Your task to perform on an android device: visit the assistant section in the google photos Image 0: 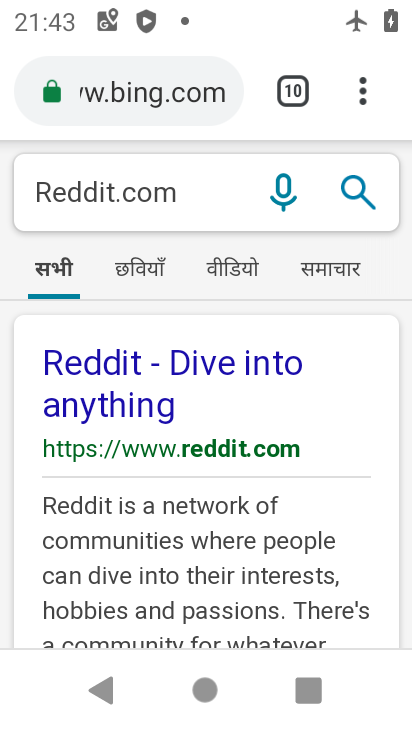
Step 0: press home button
Your task to perform on an android device: visit the assistant section in the google photos Image 1: 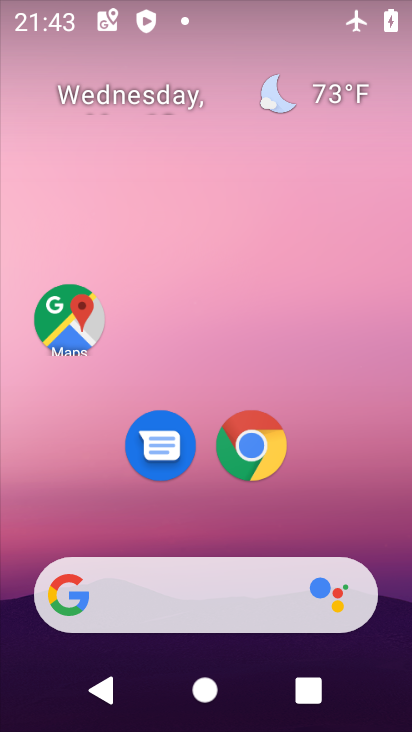
Step 1: drag from (281, 441) to (282, 148)
Your task to perform on an android device: visit the assistant section in the google photos Image 2: 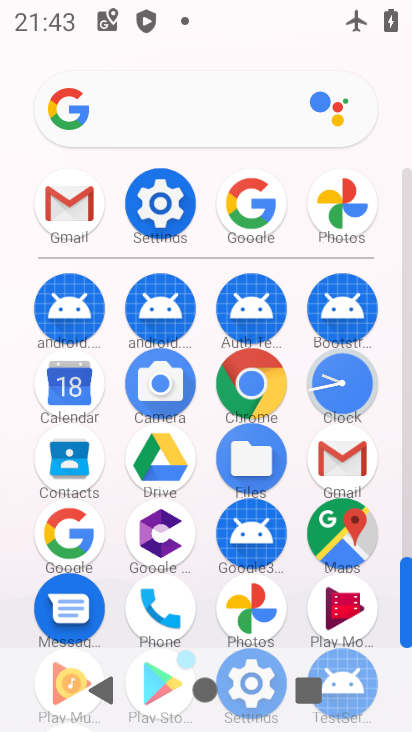
Step 2: click (248, 593)
Your task to perform on an android device: visit the assistant section in the google photos Image 3: 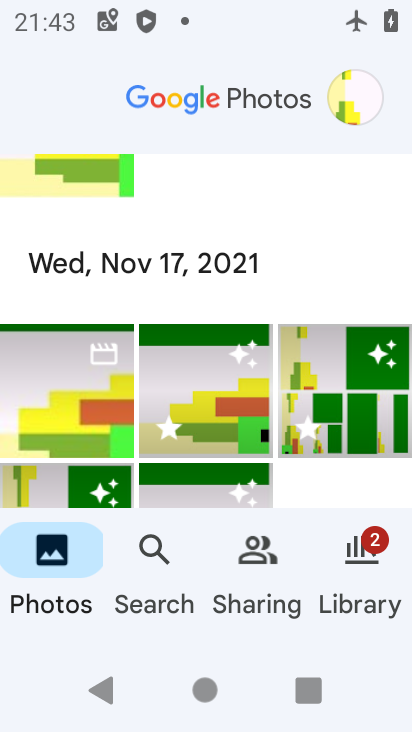
Step 3: drag from (327, 556) to (112, 546)
Your task to perform on an android device: visit the assistant section in the google photos Image 4: 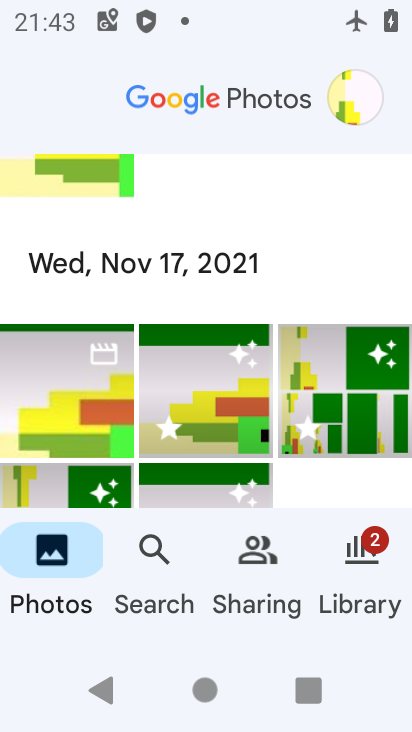
Step 4: click (353, 561)
Your task to perform on an android device: visit the assistant section in the google photos Image 5: 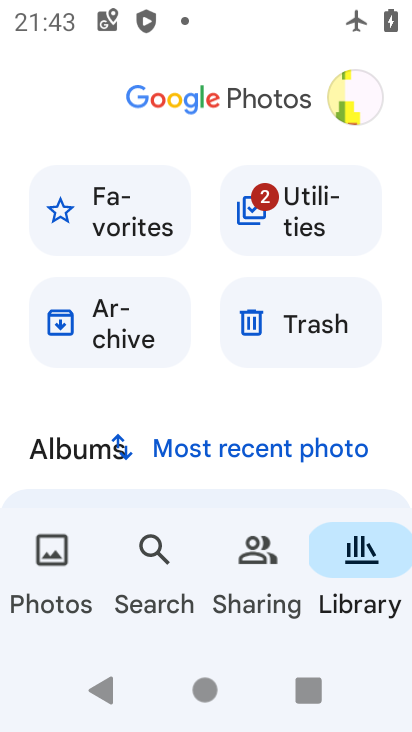
Step 5: click (247, 588)
Your task to perform on an android device: visit the assistant section in the google photos Image 6: 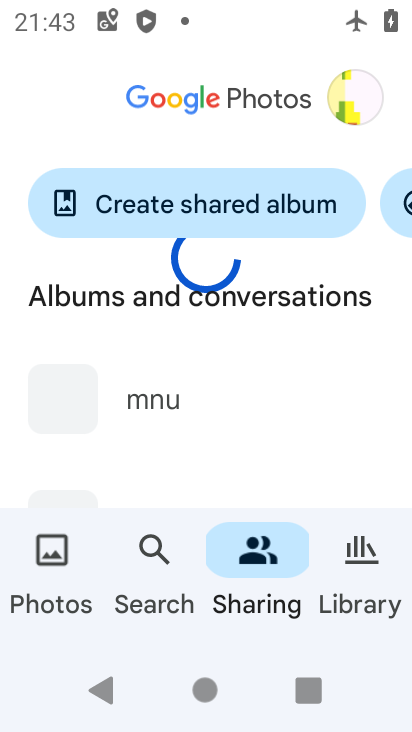
Step 6: click (154, 578)
Your task to perform on an android device: visit the assistant section in the google photos Image 7: 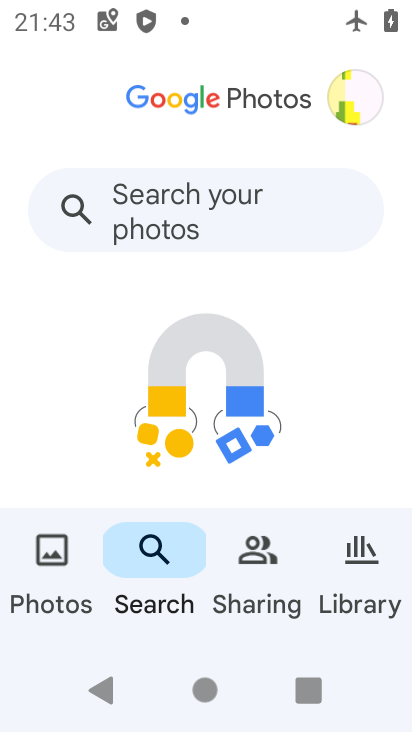
Step 7: click (102, 569)
Your task to perform on an android device: visit the assistant section in the google photos Image 8: 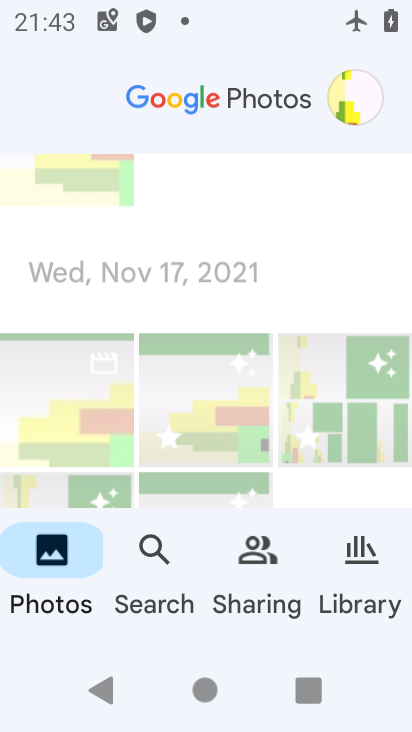
Step 8: click (34, 557)
Your task to perform on an android device: visit the assistant section in the google photos Image 9: 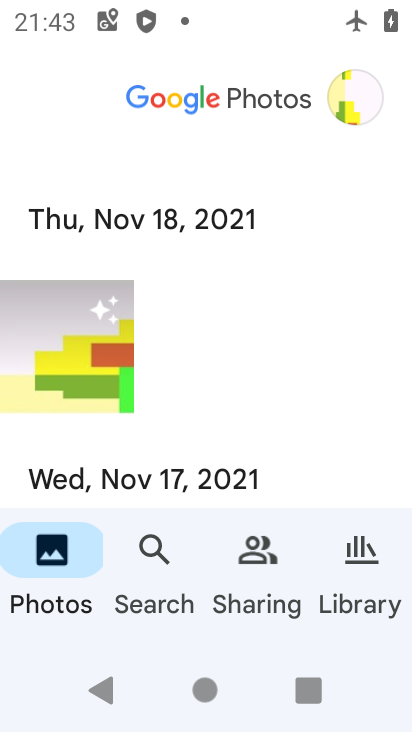
Step 9: task complete